Your task to perform on an android device: add a contact Image 0: 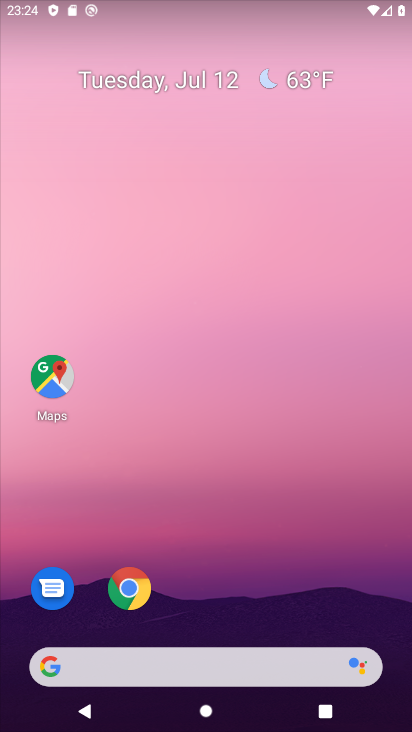
Step 0: drag from (23, 671) to (338, 0)
Your task to perform on an android device: add a contact Image 1: 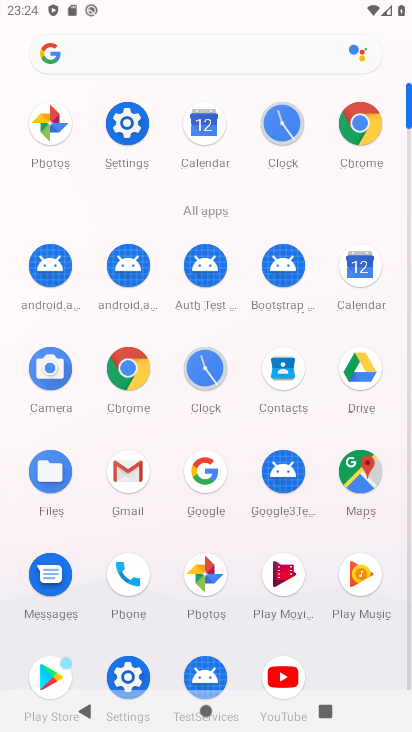
Step 1: click (141, 571)
Your task to perform on an android device: add a contact Image 2: 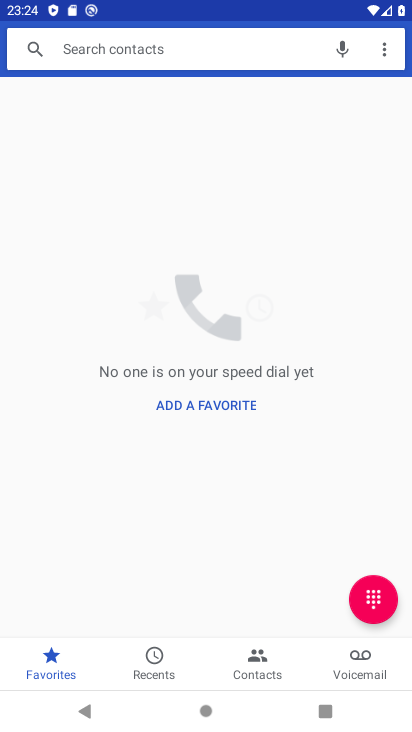
Step 2: click (254, 661)
Your task to perform on an android device: add a contact Image 3: 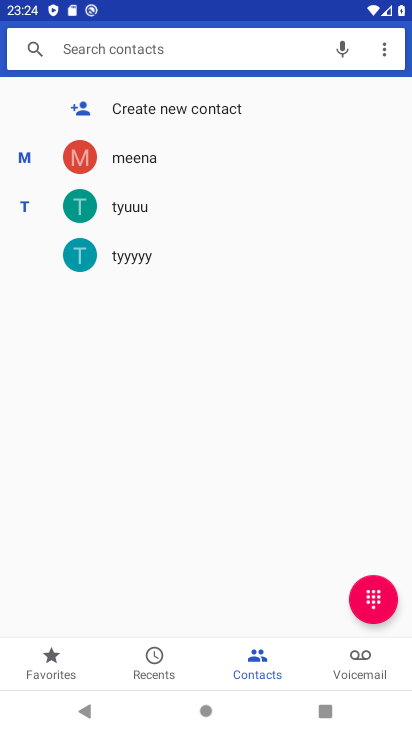
Step 3: click (170, 117)
Your task to perform on an android device: add a contact Image 4: 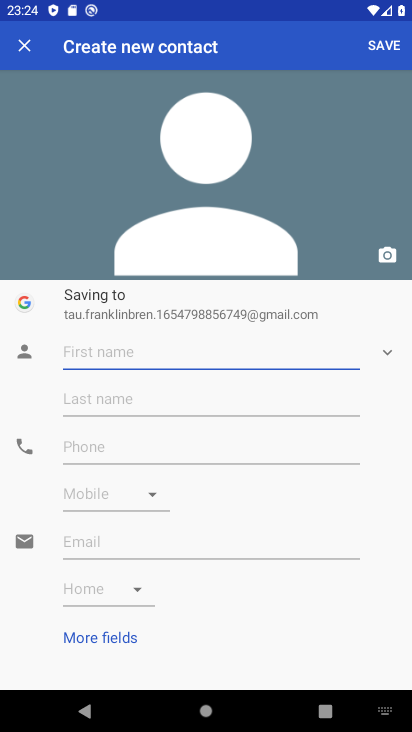
Step 4: type "xzfdsa"
Your task to perform on an android device: add a contact Image 5: 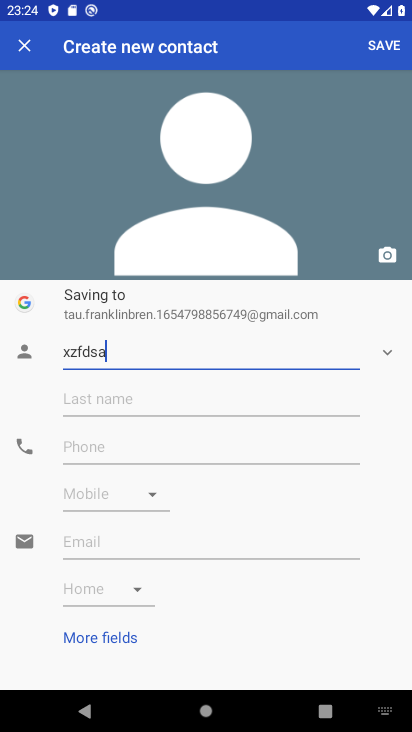
Step 5: type ""
Your task to perform on an android device: add a contact Image 6: 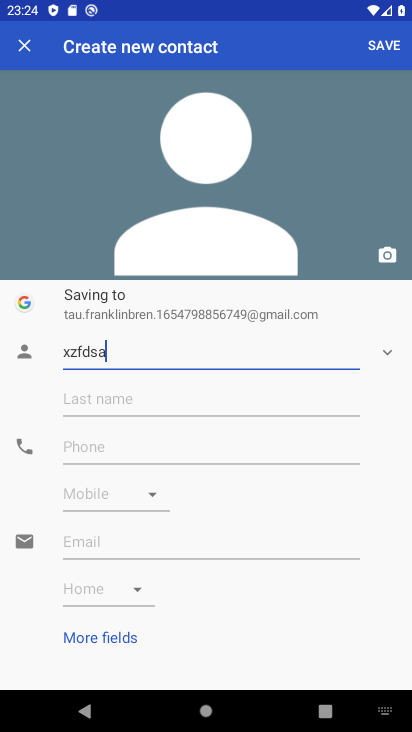
Step 6: click (388, 42)
Your task to perform on an android device: add a contact Image 7: 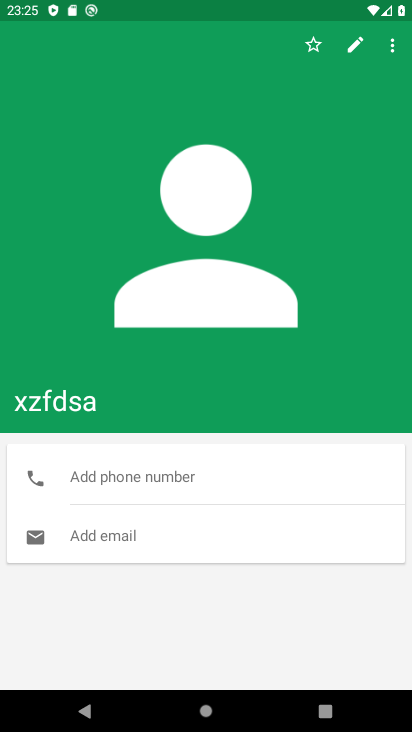
Step 7: task complete